Your task to perform on an android device: Go to Amazon Image 0: 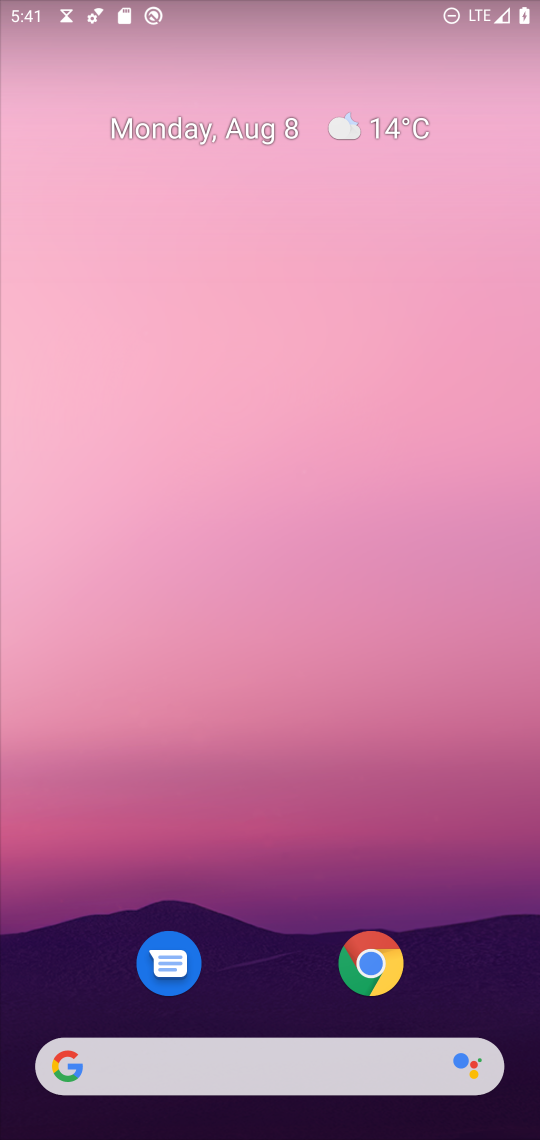
Step 0: click (389, 948)
Your task to perform on an android device: Go to Amazon Image 1: 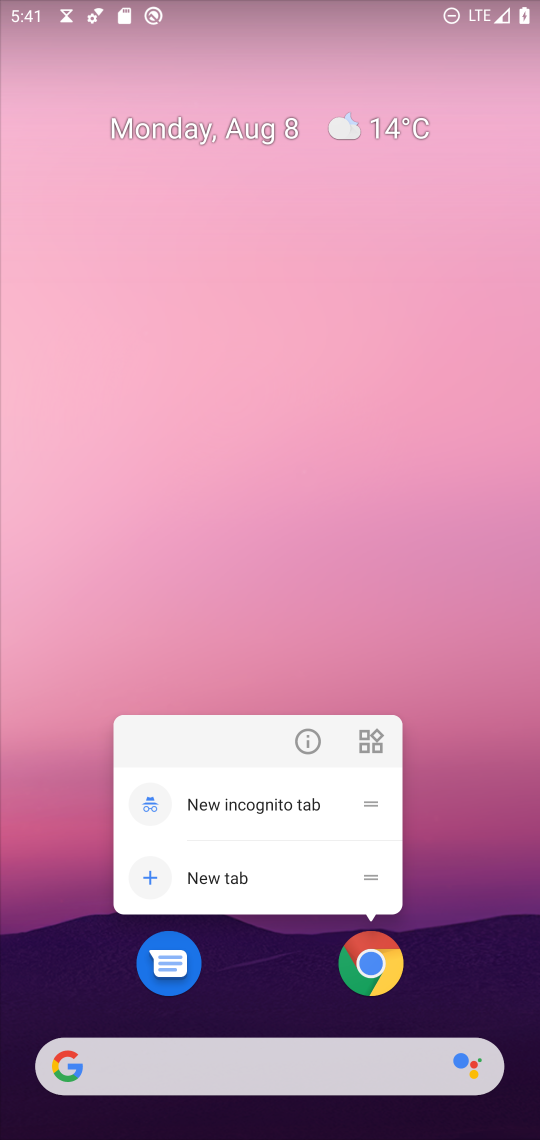
Step 1: click (373, 966)
Your task to perform on an android device: Go to Amazon Image 2: 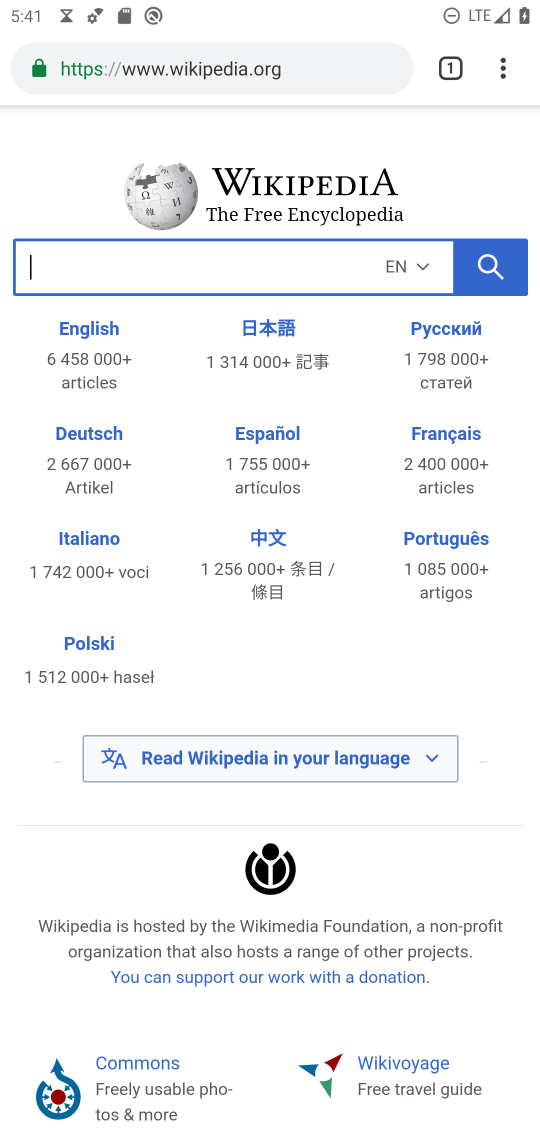
Step 2: click (205, 73)
Your task to perform on an android device: Go to Amazon Image 3: 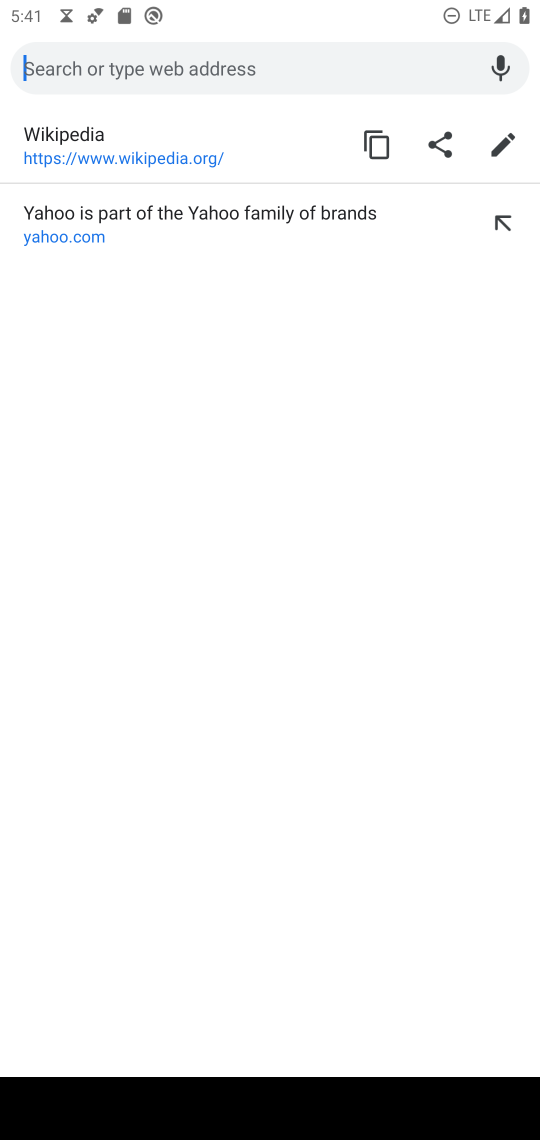
Step 3: type "amazon"
Your task to perform on an android device: Go to Amazon Image 4: 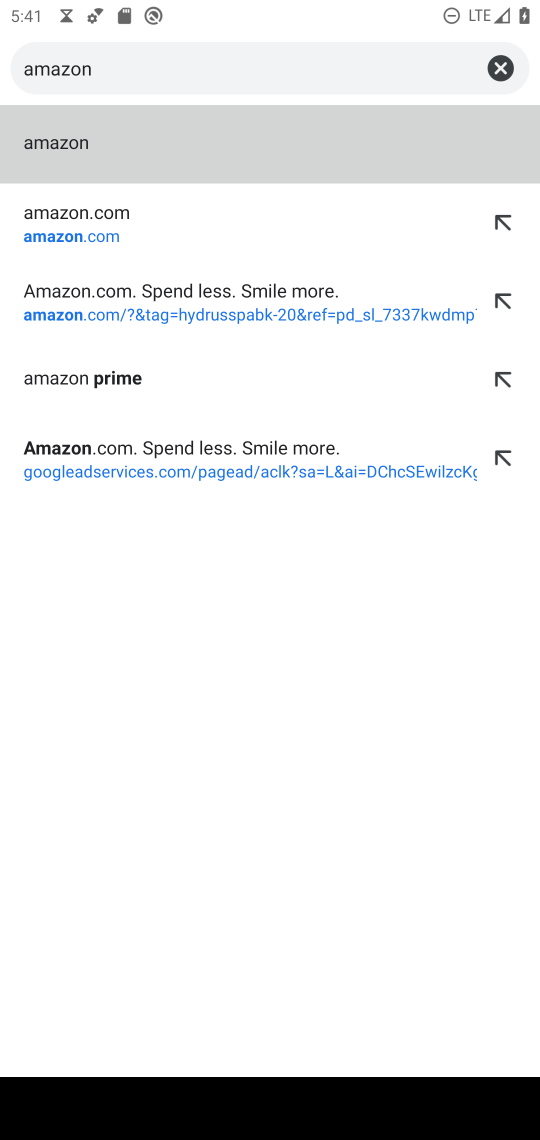
Step 4: click (137, 151)
Your task to perform on an android device: Go to Amazon Image 5: 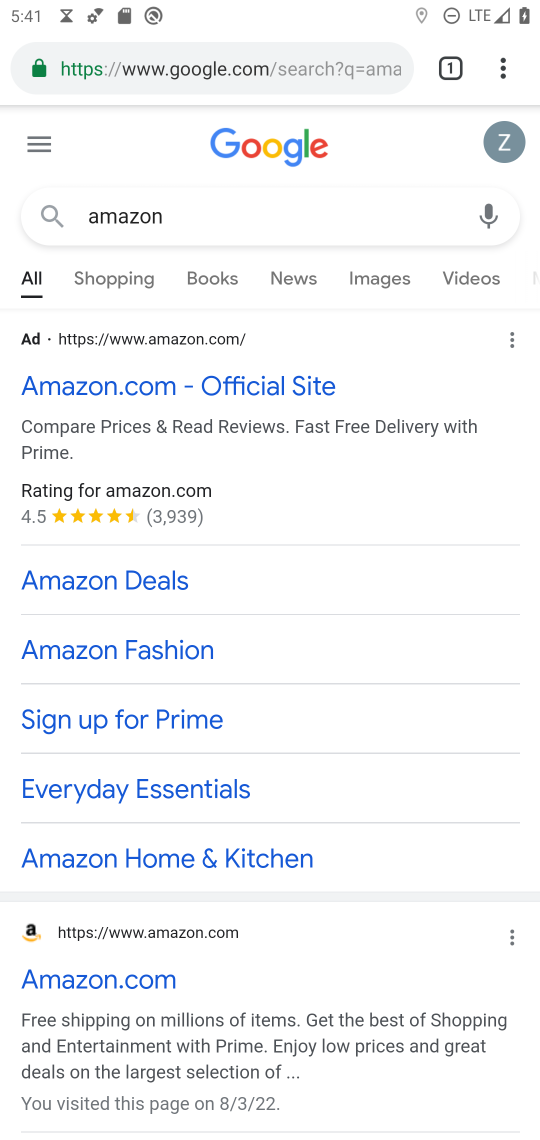
Step 5: click (87, 393)
Your task to perform on an android device: Go to Amazon Image 6: 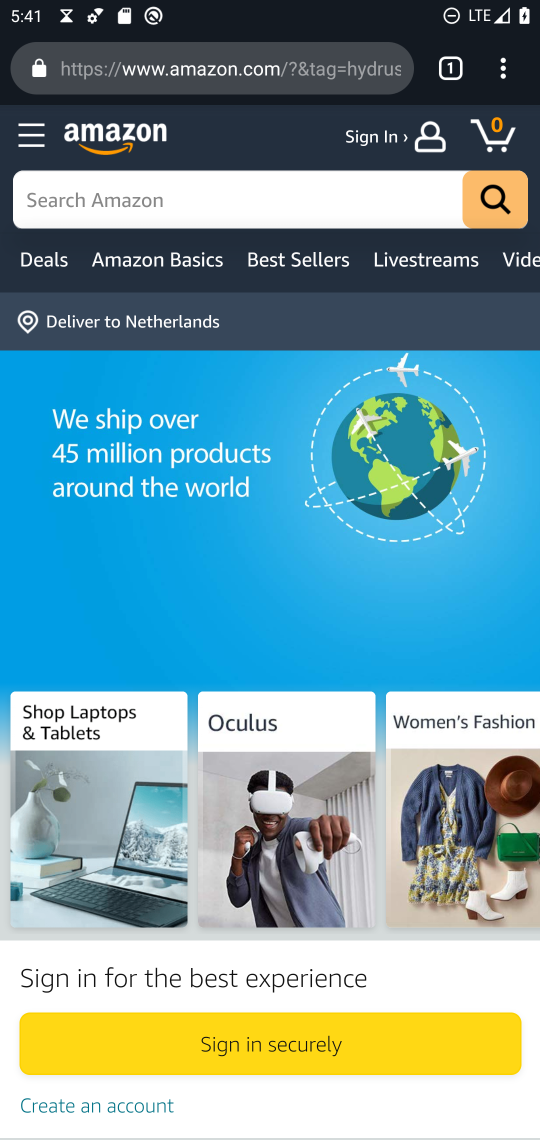
Step 6: task complete